Your task to perform on an android device: turn on sleep mode Image 0: 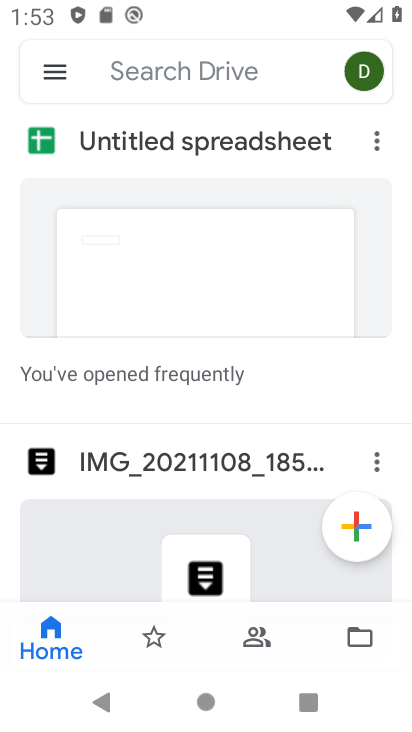
Step 0: press home button
Your task to perform on an android device: turn on sleep mode Image 1: 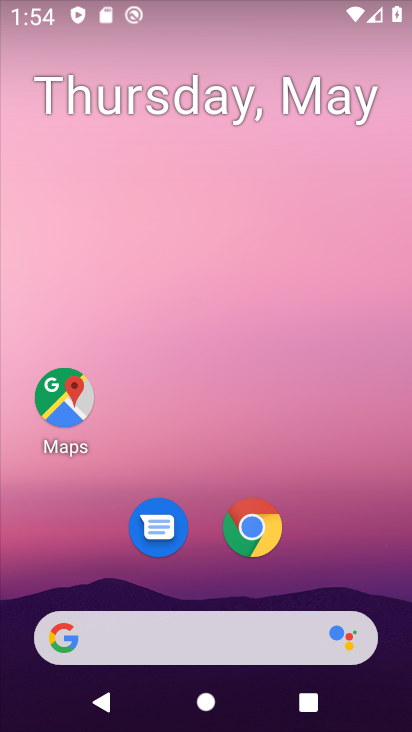
Step 1: drag from (316, 462) to (224, 127)
Your task to perform on an android device: turn on sleep mode Image 2: 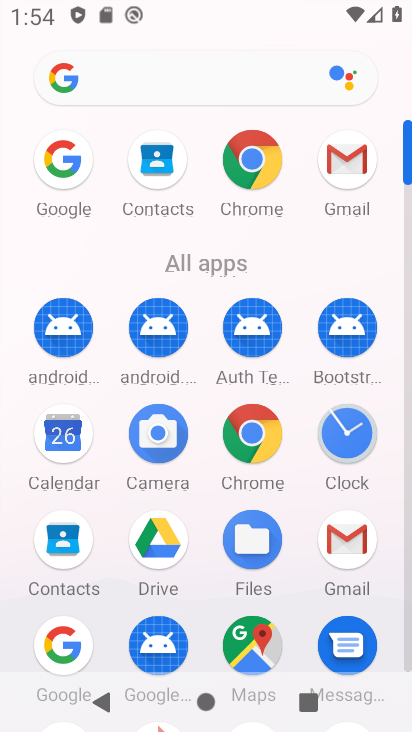
Step 2: click (409, 655)
Your task to perform on an android device: turn on sleep mode Image 3: 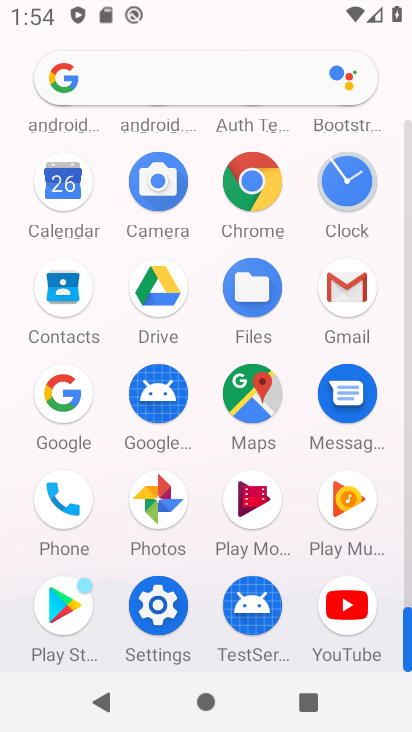
Step 3: click (159, 626)
Your task to perform on an android device: turn on sleep mode Image 4: 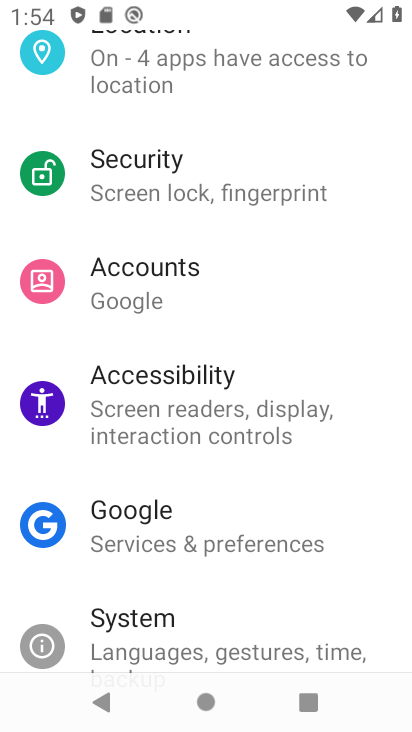
Step 4: drag from (145, 158) to (232, 404)
Your task to perform on an android device: turn on sleep mode Image 5: 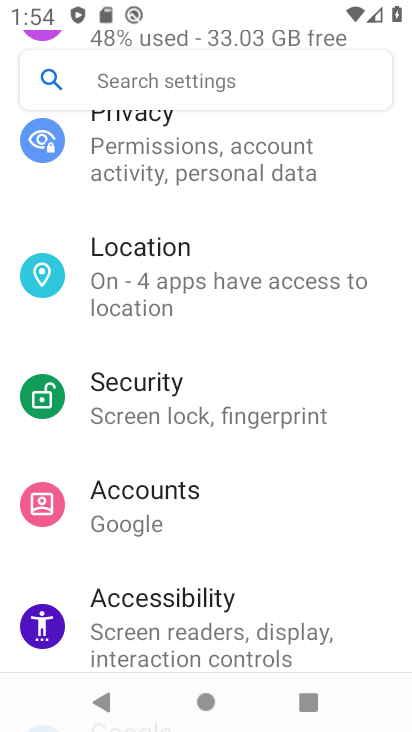
Step 5: drag from (208, 223) to (295, 729)
Your task to perform on an android device: turn on sleep mode Image 6: 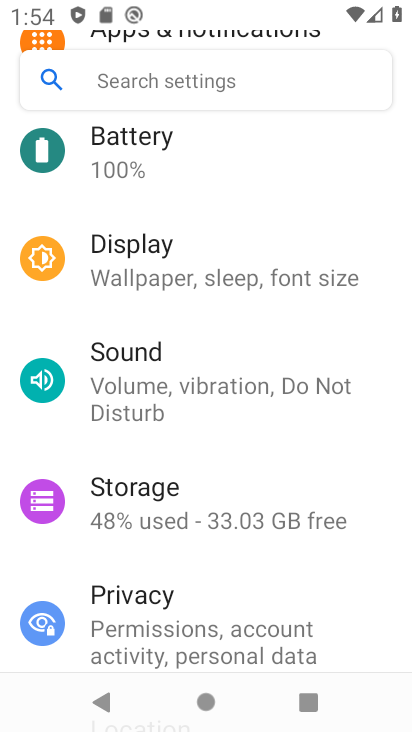
Step 6: click (92, 248)
Your task to perform on an android device: turn on sleep mode Image 7: 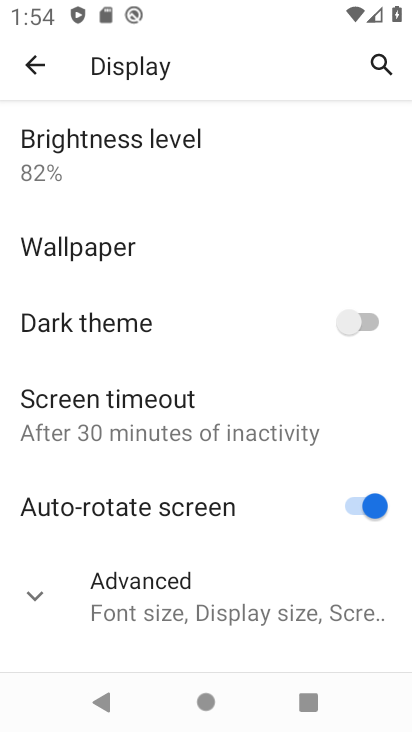
Step 7: task complete